Your task to perform on an android device: toggle pop-ups in chrome Image 0: 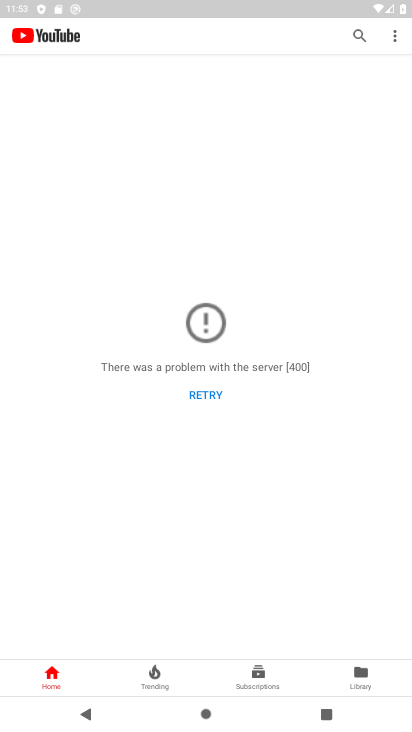
Step 0: press home button
Your task to perform on an android device: toggle pop-ups in chrome Image 1: 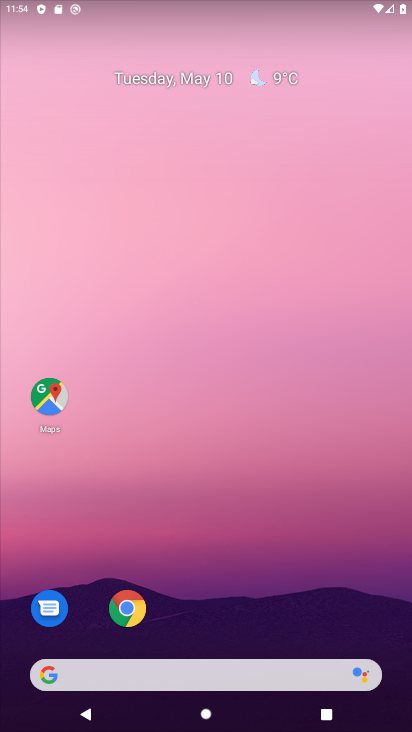
Step 1: drag from (221, 541) to (276, 184)
Your task to perform on an android device: toggle pop-ups in chrome Image 2: 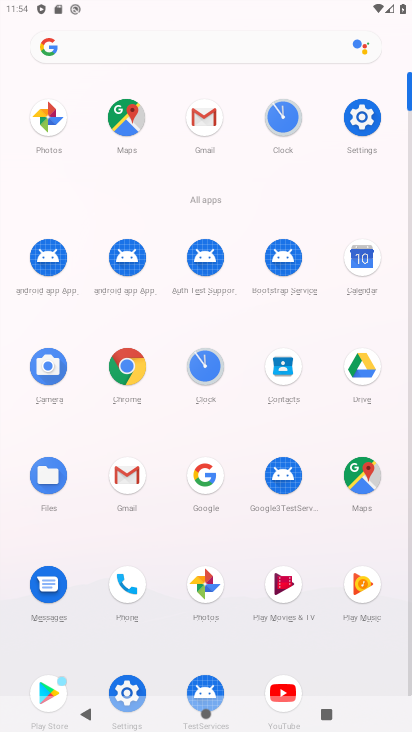
Step 2: click (137, 393)
Your task to perform on an android device: toggle pop-ups in chrome Image 3: 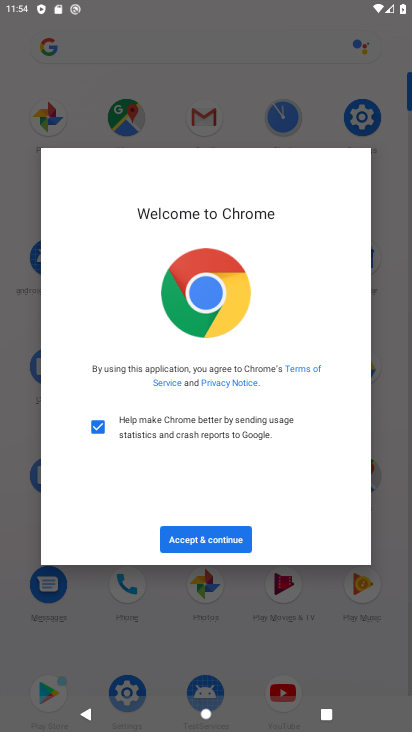
Step 3: click (226, 547)
Your task to perform on an android device: toggle pop-ups in chrome Image 4: 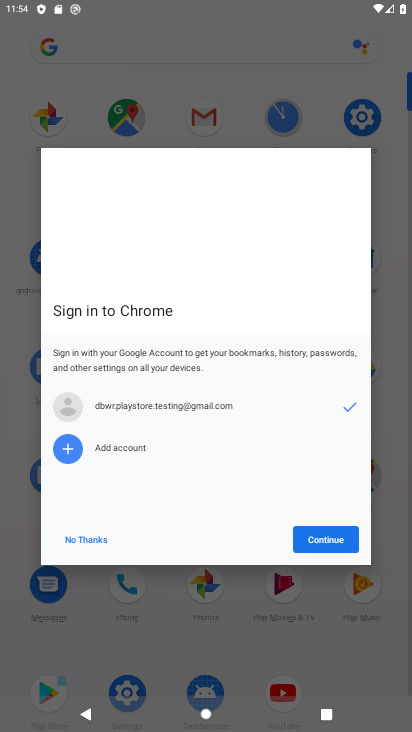
Step 4: click (329, 540)
Your task to perform on an android device: toggle pop-ups in chrome Image 5: 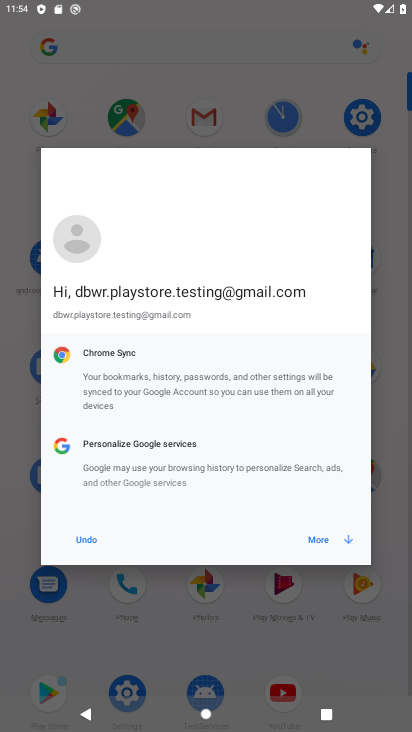
Step 5: click (329, 540)
Your task to perform on an android device: toggle pop-ups in chrome Image 6: 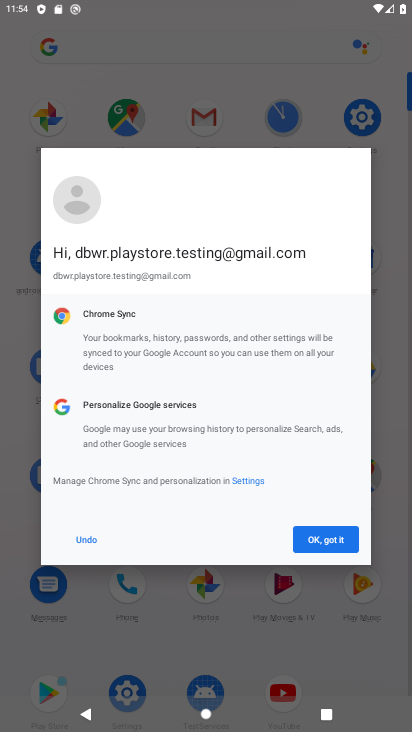
Step 6: click (329, 540)
Your task to perform on an android device: toggle pop-ups in chrome Image 7: 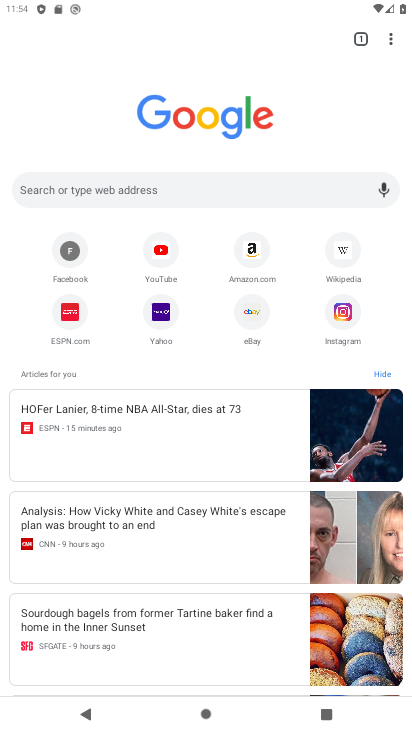
Step 7: click (391, 44)
Your task to perform on an android device: toggle pop-ups in chrome Image 8: 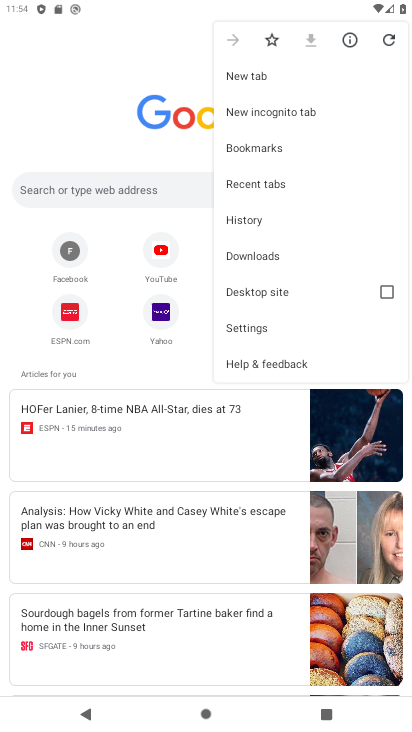
Step 8: click (259, 329)
Your task to perform on an android device: toggle pop-ups in chrome Image 9: 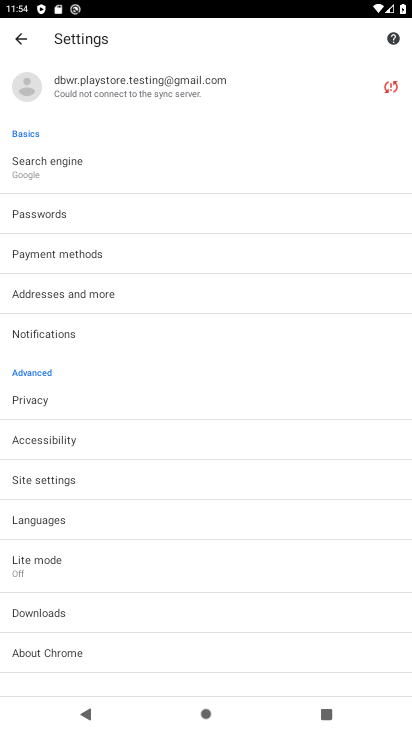
Step 9: click (92, 487)
Your task to perform on an android device: toggle pop-ups in chrome Image 10: 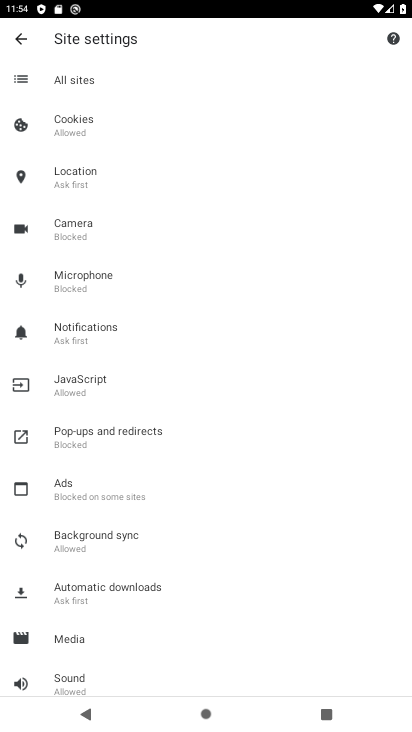
Step 10: click (146, 441)
Your task to perform on an android device: toggle pop-ups in chrome Image 11: 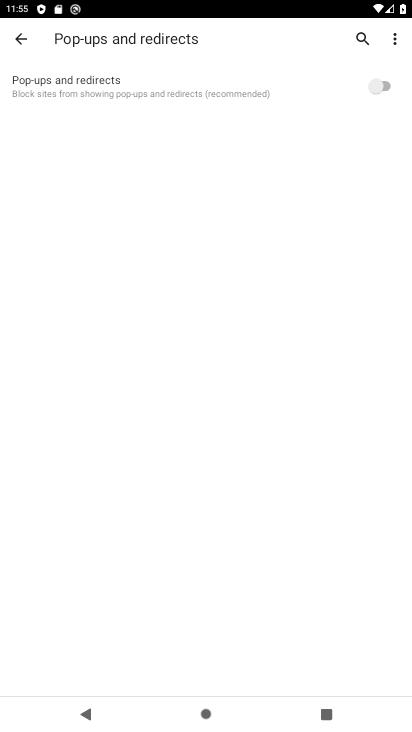
Step 11: click (383, 87)
Your task to perform on an android device: toggle pop-ups in chrome Image 12: 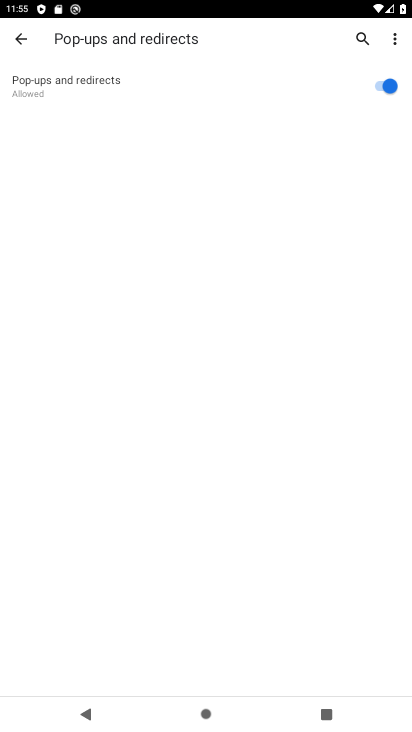
Step 12: task complete